Your task to perform on an android device: Open Google Maps and go to "Timeline" Image 0: 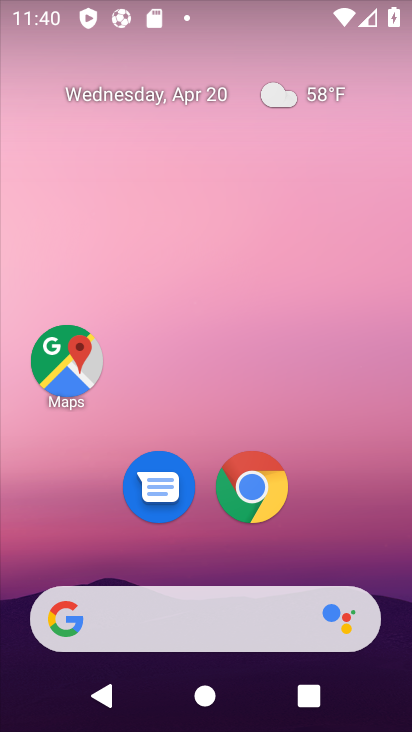
Step 0: click (63, 359)
Your task to perform on an android device: Open Google Maps and go to "Timeline" Image 1: 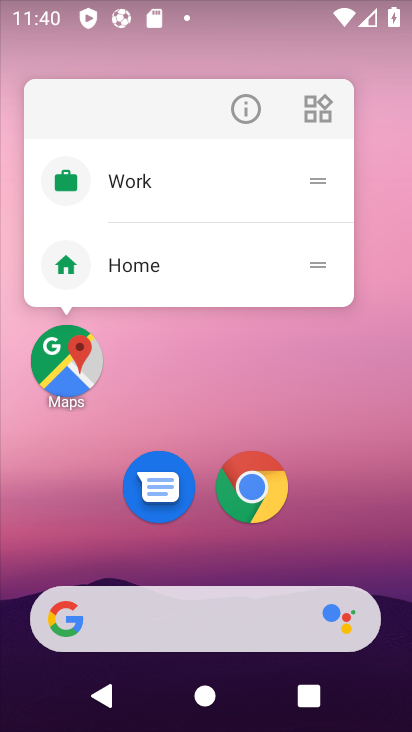
Step 1: click (63, 359)
Your task to perform on an android device: Open Google Maps and go to "Timeline" Image 2: 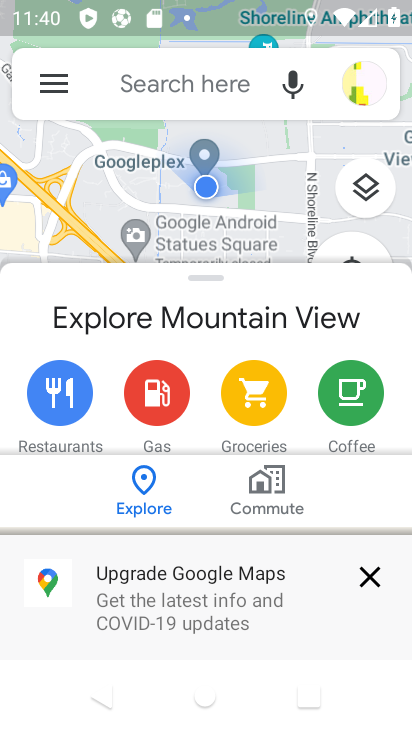
Step 2: click (51, 78)
Your task to perform on an android device: Open Google Maps and go to "Timeline" Image 3: 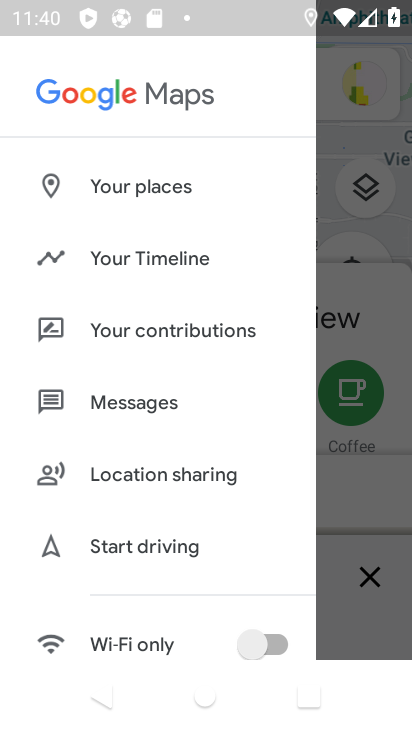
Step 3: click (114, 255)
Your task to perform on an android device: Open Google Maps and go to "Timeline" Image 4: 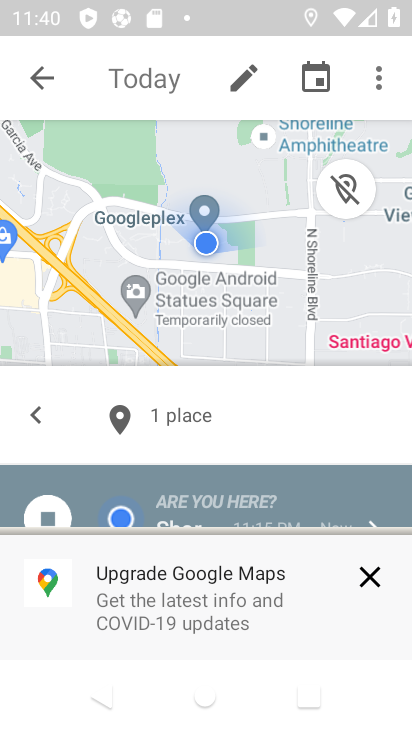
Step 4: task complete